Your task to perform on an android device: When is my next meeting? Image 0: 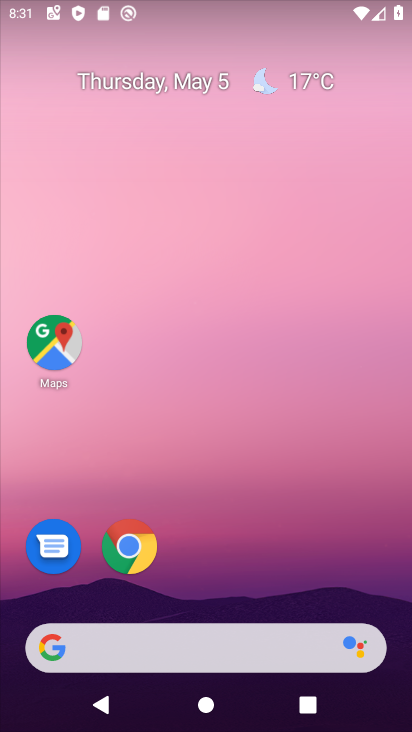
Step 0: drag from (148, 644) to (306, 14)
Your task to perform on an android device: When is my next meeting? Image 1: 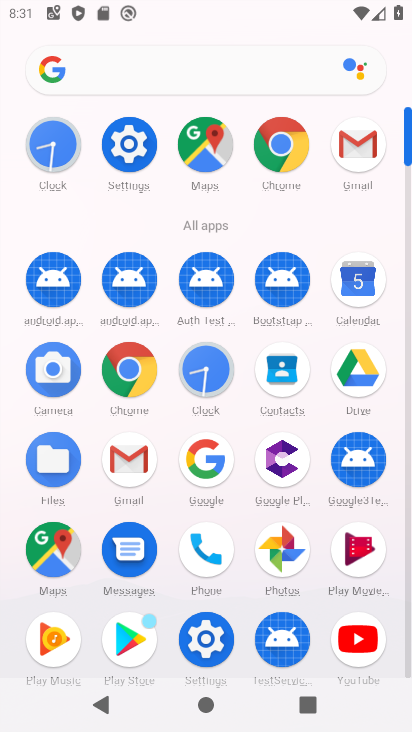
Step 1: click (359, 293)
Your task to perform on an android device: When is my next meeting? Image 2: 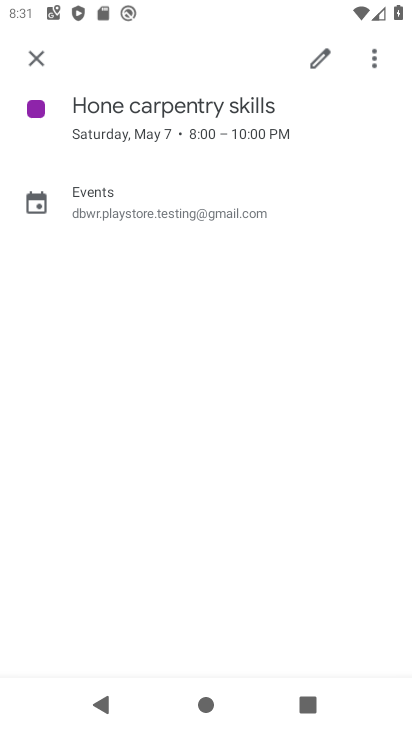
Step 2: click (37, 62)
Your task to perform on an android device: When is my next meeting? Image 3: 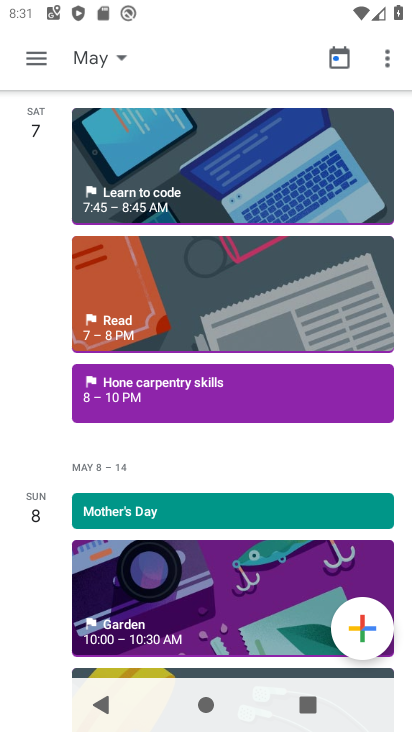
Step 3: click (33, 62)
Your task to perform on an android device: When is my next meeting? Image 4: 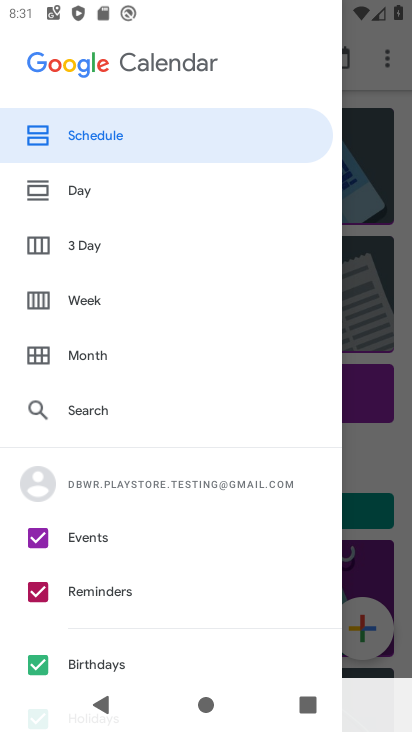
Step 4: click (88, 301)
Your task to perform on an android device: When is my next meeting? Image 5: 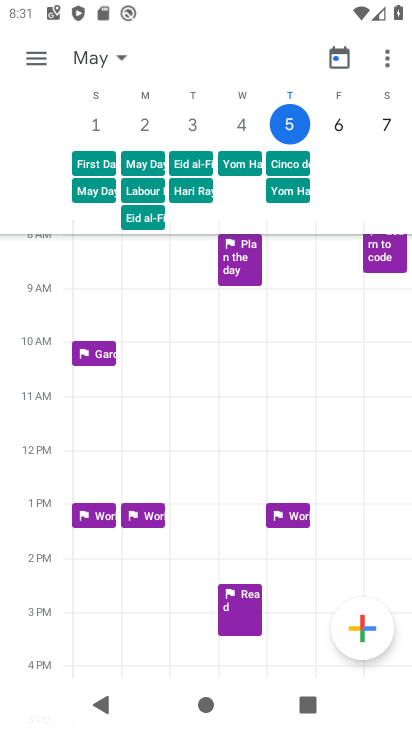
Step 5: drag from (183, 621) to (355, 71)
Your task to perform on an android device: When is my next meeting? Image 6: 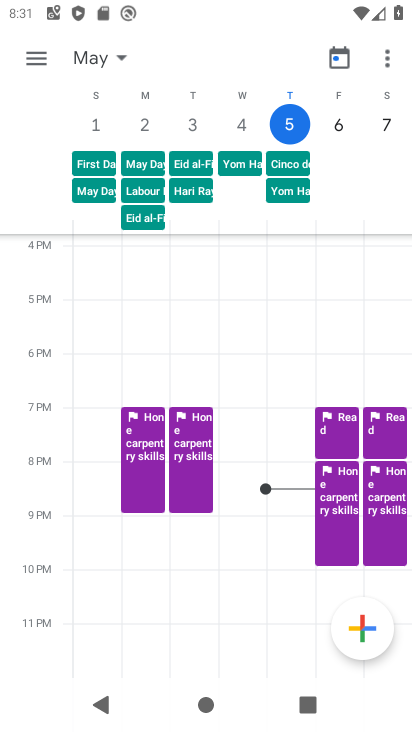
Step 6: click (334, 119)
Your task to perform on an android device: When is my next meeting? Image 7: 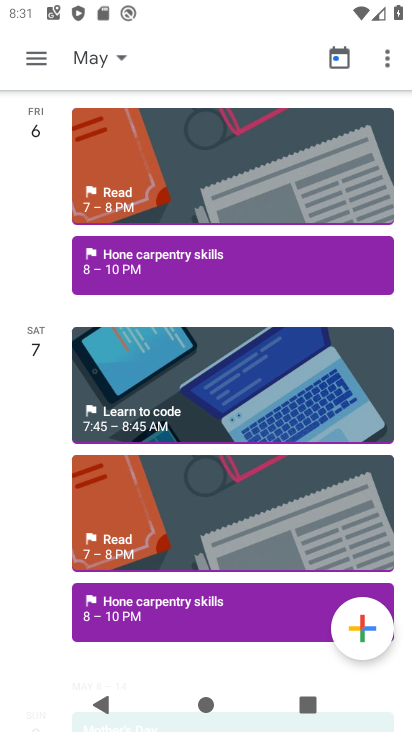
Step 7: click (183, 261)
Your task to perform on an android device: When is my next meeting? Image 8: 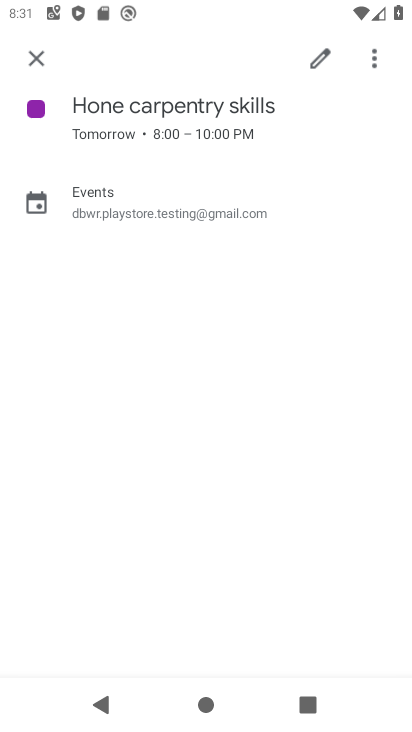
Step 8: task complete